Your task to perform on an android device: all mails in gmail Image 0: 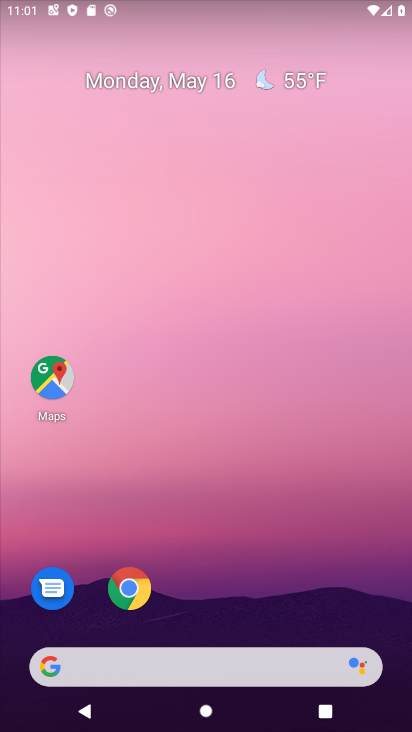
Step 0: drag from (378, 562) to (375, 115)
Your task to perform on an android device: all mails in gmail Image 1: 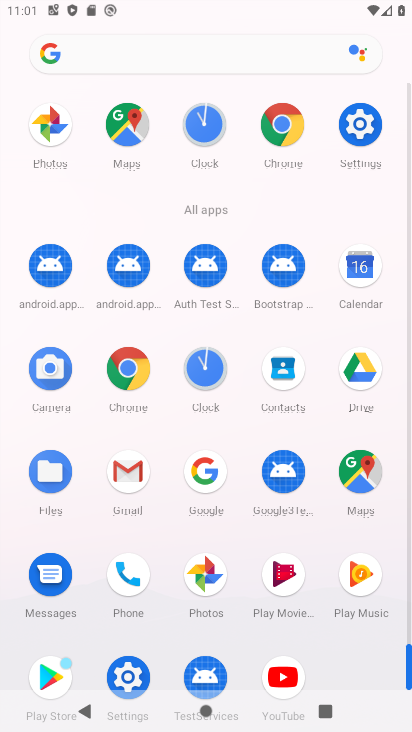
Step 1: click (142, 473)
Your task to perform on an android device: all mails in gmail Image 2: 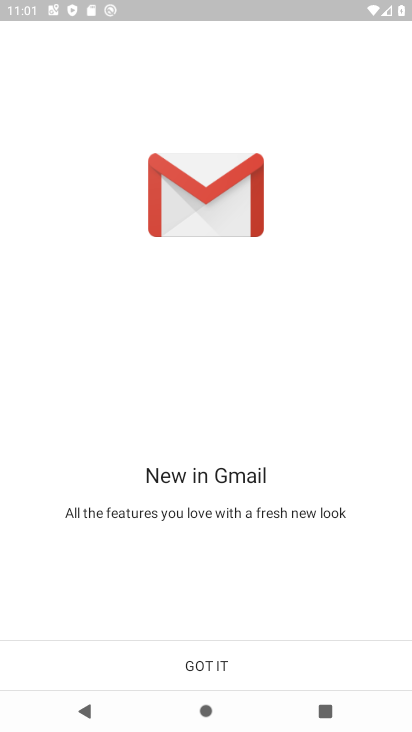
Step 2: click (230, 668)
Your task to perform on an android device: all mails in gmail Image 3: 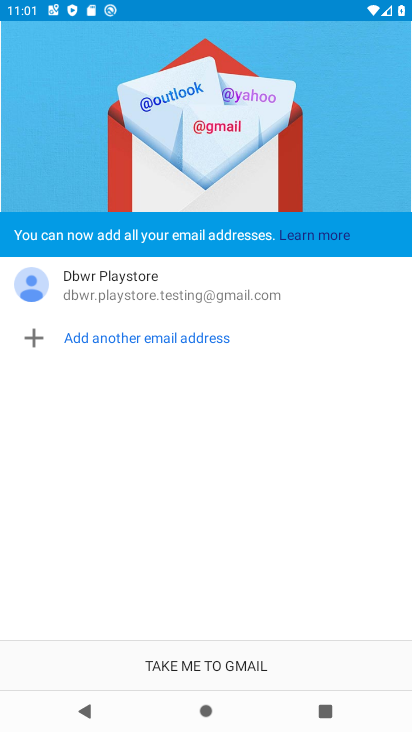
Step 3: click (214, 657)
Your task to perform on an android device: all mails in gmail Image 4: 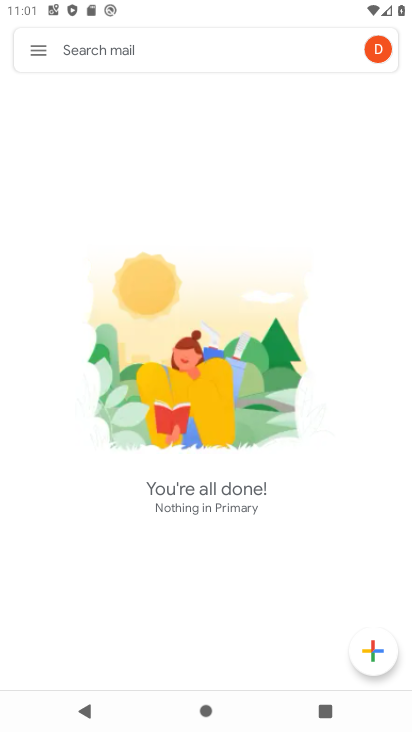
Step 4: click (33, 57)
Your task to perform on an android device: all mails in gmail Image 5: 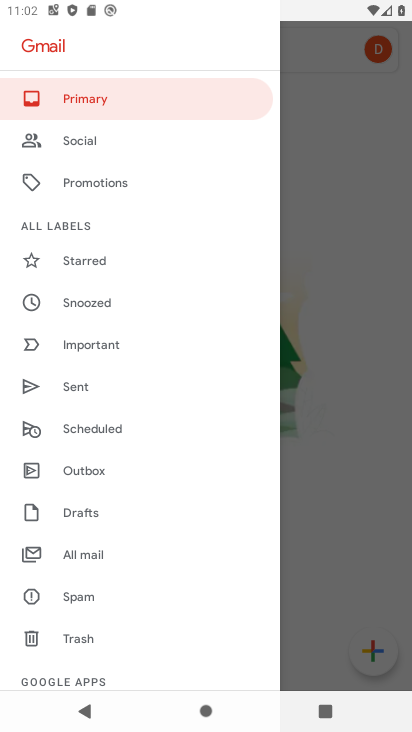
Step 5: drag from (206, 558) to (219, 409)
Your task to perform on an android device: all mails in gmail Image 6: 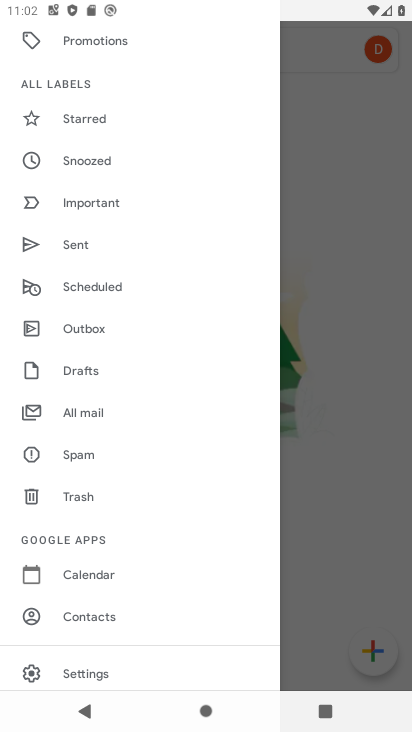
Step 6: drag from (230, 585) to (212, 481)
Your task to perform on an android device: all mails in gmail Image 7: 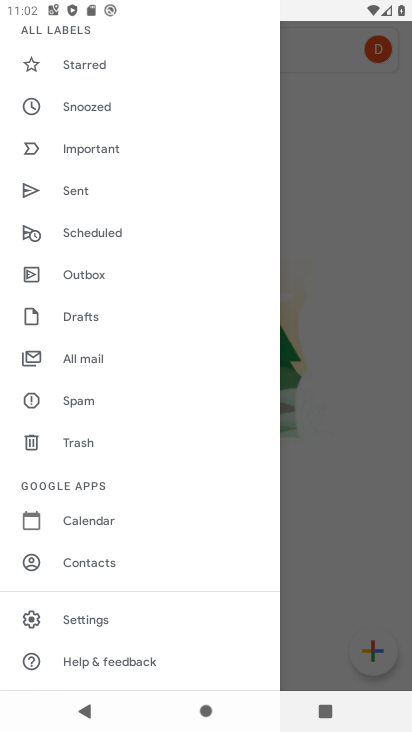
Step 7: drag from (202, 616) to (204, 512)
Your task to perform on an android device: all mails in gmail Image 8: 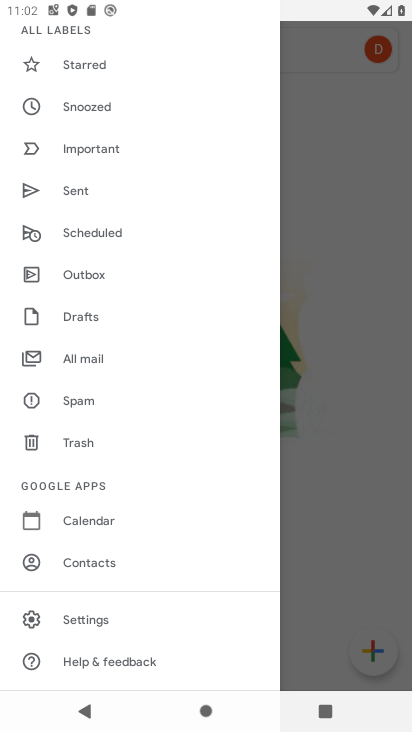
Step 8: drag from (189, 621) to (182, 528)
Your task to perform on an android device: all mails in gmail Image 9: 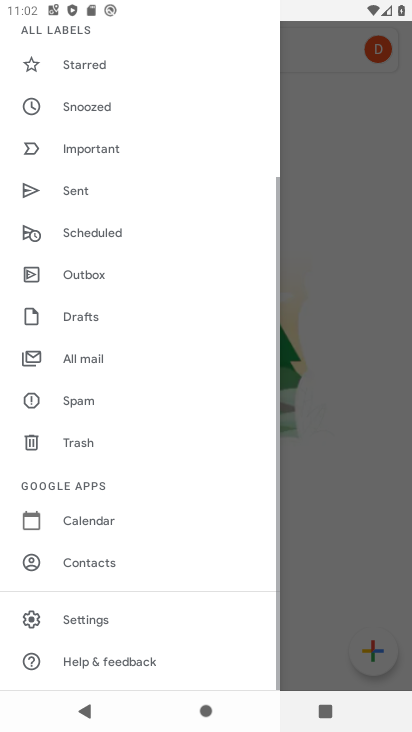
Step 9: drag from (159, 370) to (174, 480)
Your task to perform on an android device: all mails in gmail Image 10: 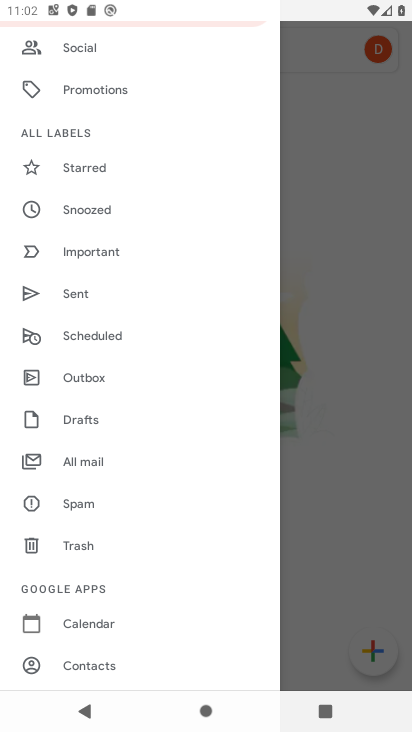
Step 10: click (93, 460)
Your task to perform on an android device: all mails in gmail Image 11: 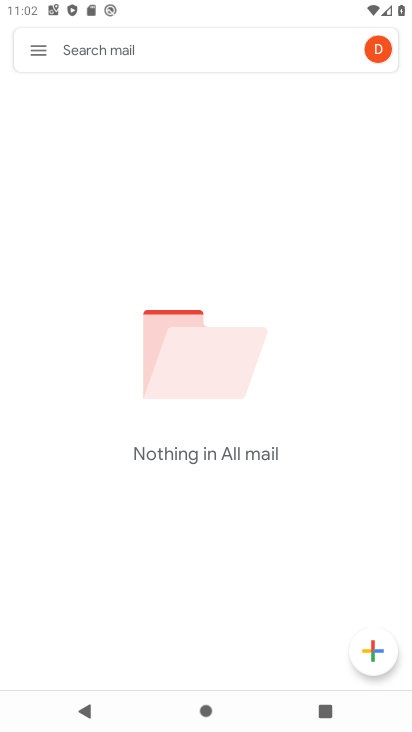
Step 11: task complete